Your task to perform on an android device: visit the assistant section in the google photos Image 0: 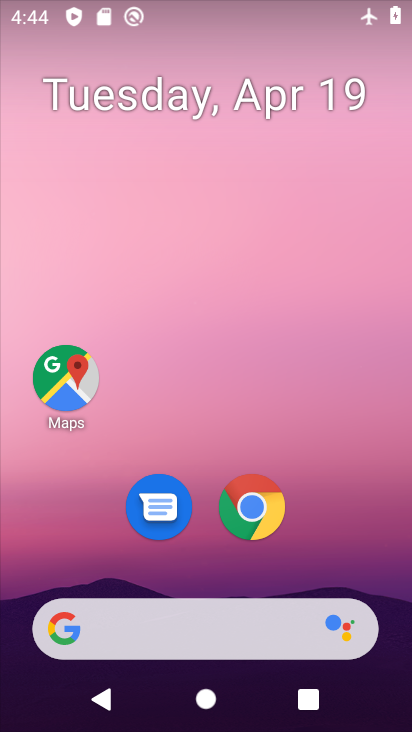
Step 0: drag from (349, 526) to (298, 166)
Your task to perform on an android device: visit the assistant section in the google photos Image 1: 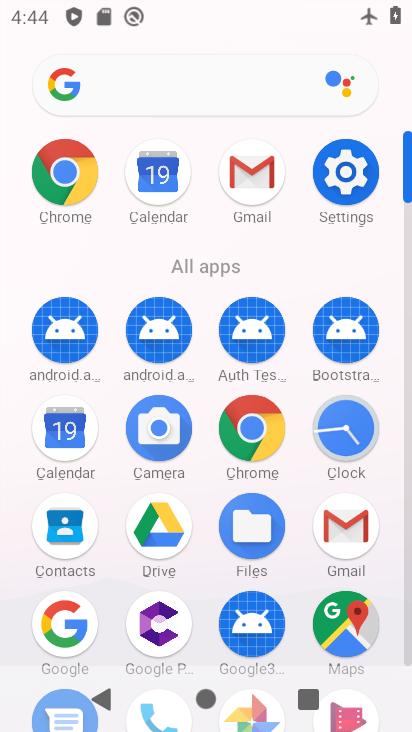
Step 1: drag from (289, 586) to (320, 270)
Your task to perform on an android device: visit the assistant section in the google photos Image 2: 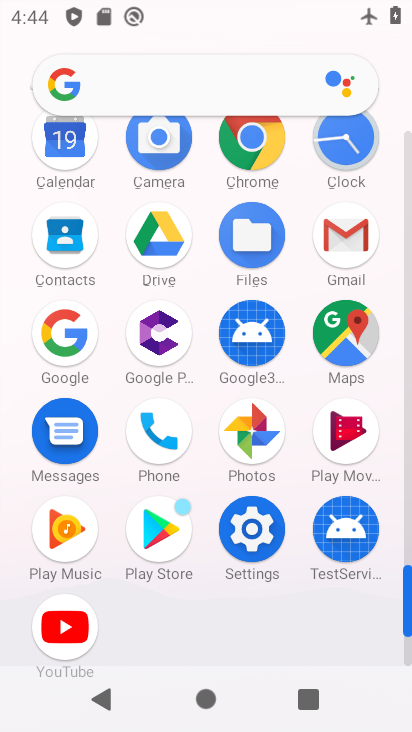
Step 2: click (261, 446)
Your task to perform on an android device: visit the assistant section in the google photos Image 3: 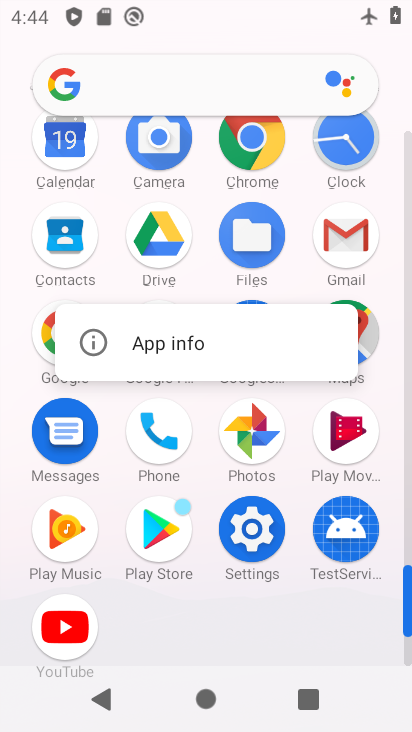
Step 3: click (262, 435)
Your task to perform on an android device: visit the assistant section in the google photos Image 4: 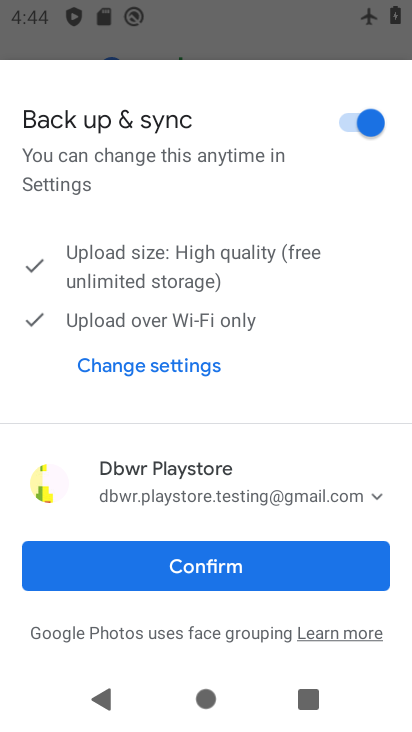
Step 4: press back button
Your task to perform on an android device: visit the assistant section in the google photos Image 5: 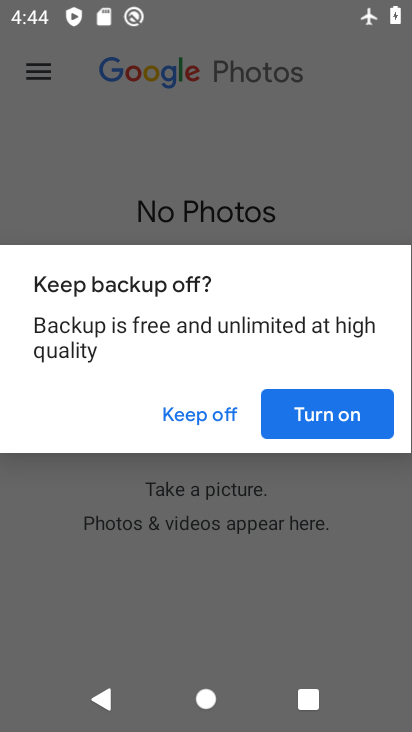
Step 5: press back button
Your task to perform on an android device: visit the assistant section in the google photos Image 6: 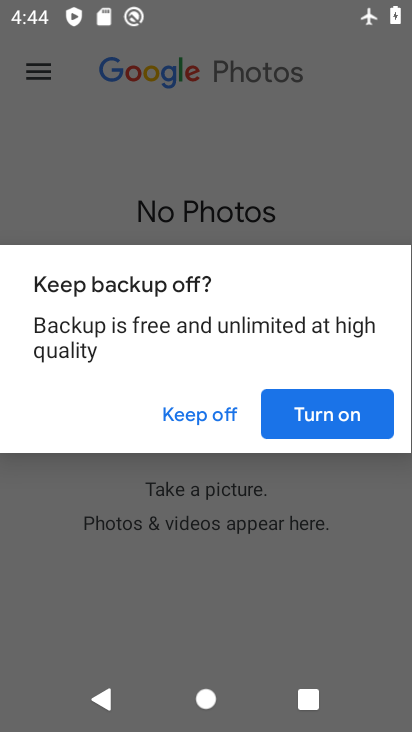
Step 6: click (174, 421)
Your task to perform on an android device: visit the assistant section in the google photos Image 7: 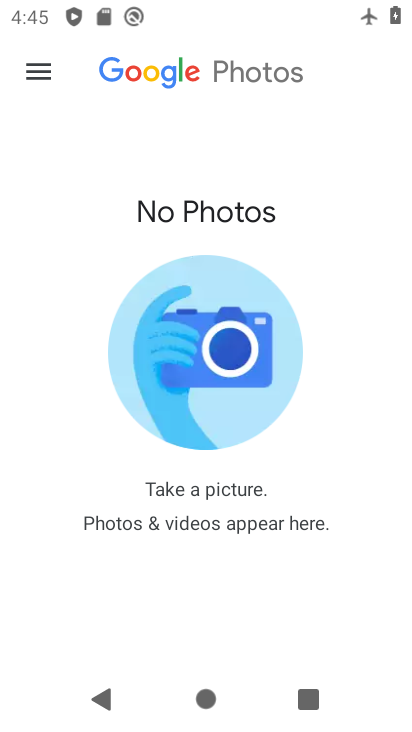
Step 7: click (37, 71)
Your task to perform on an android device: visit the assistant section in the google photos Image 8: 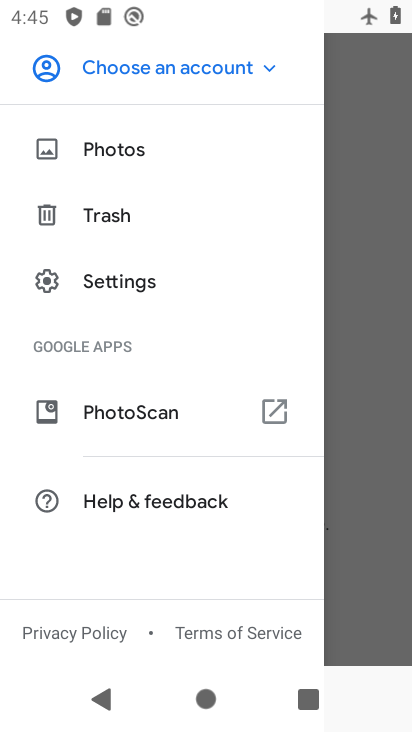
Step 8: task complete